Your task to perform on an android device: install app "McDonald's" Image 0: 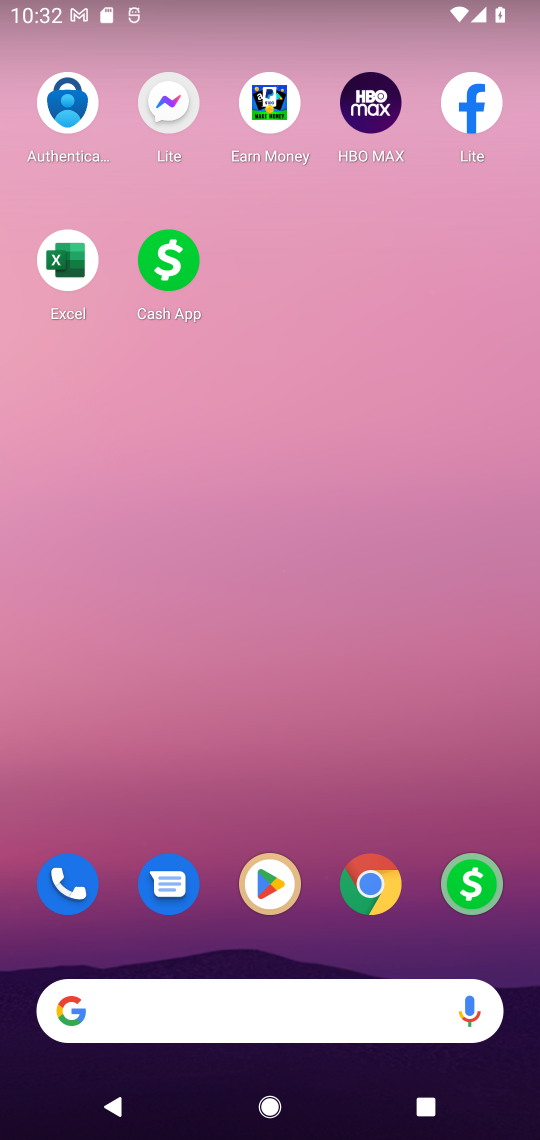
Step 0: drag from (235, 1016) to (410, 34)
Your task to perform on an android device: install app "McDonald's" Image 1: 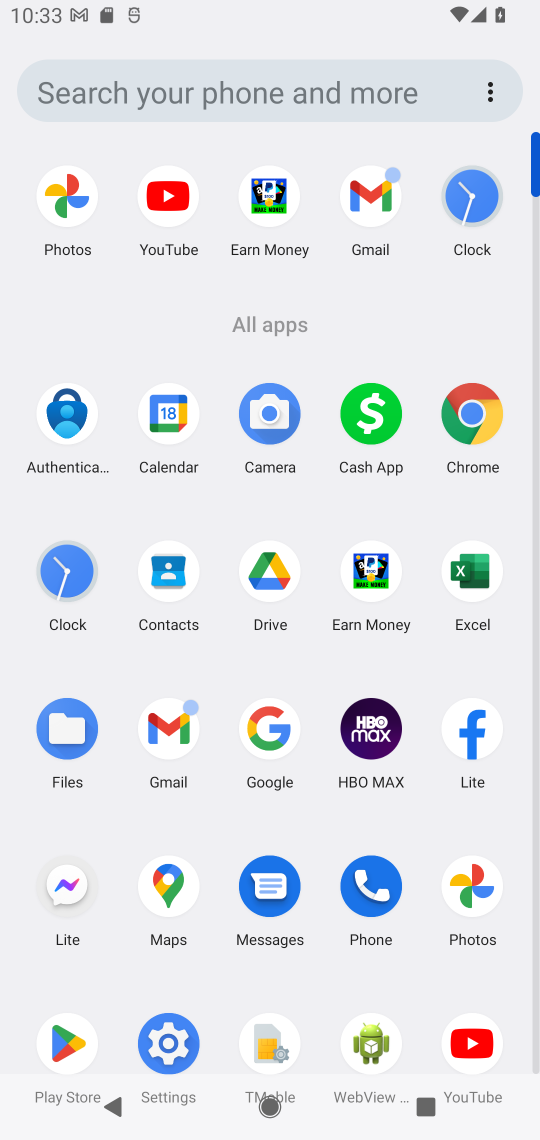
Step 1: click (69, 1056)
Your task to perform on an android device: install app "McDonald's" Image 2: 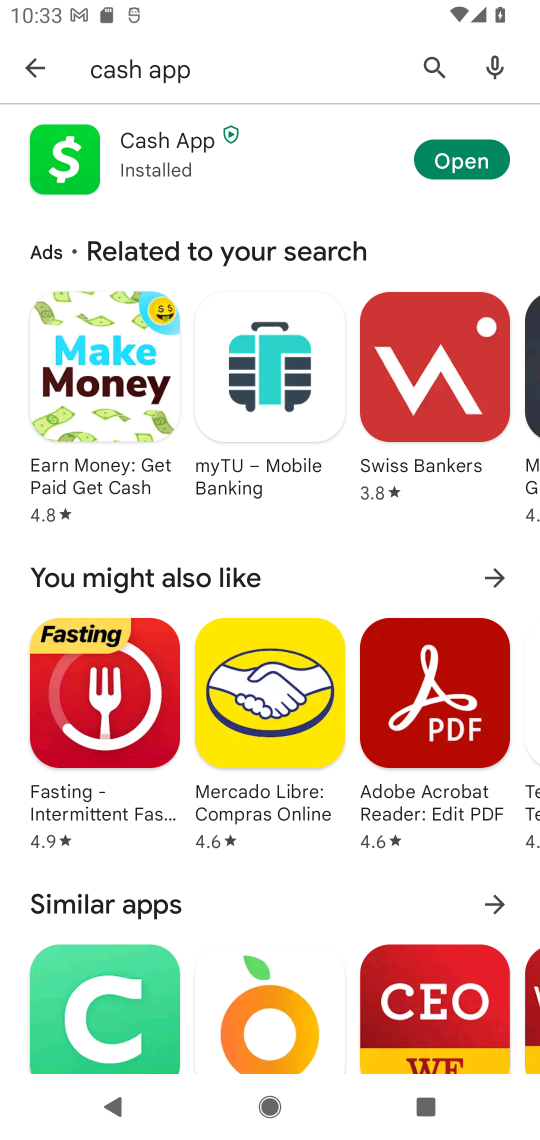
Step 2: press back button
Your task to perform on an android device: install app "McDonald's" Image 3: 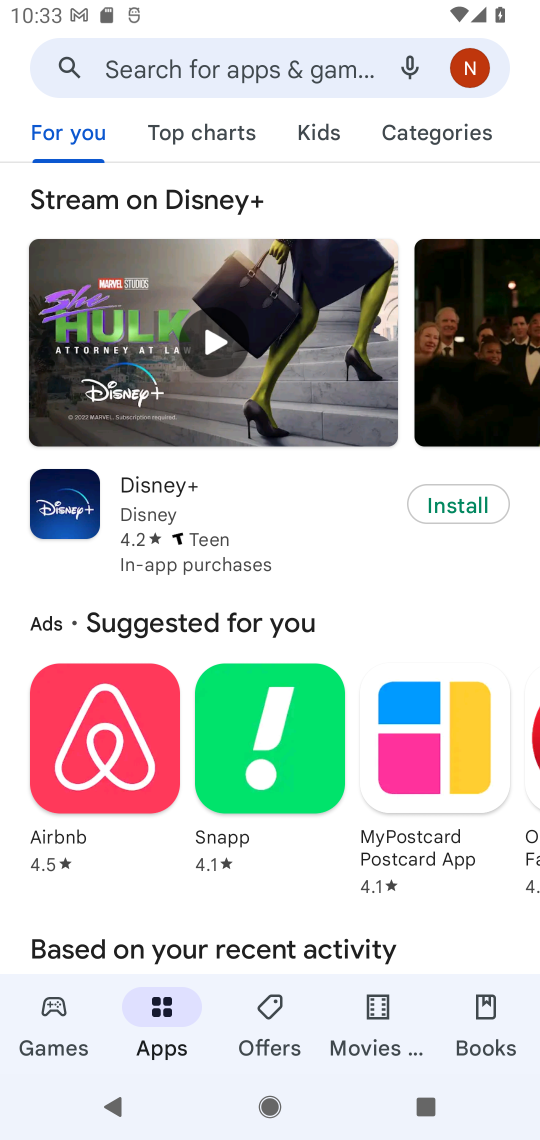
Step 3: click (291, 69)
Your task to perform on an android device: install app "McDonald's" Image 4: 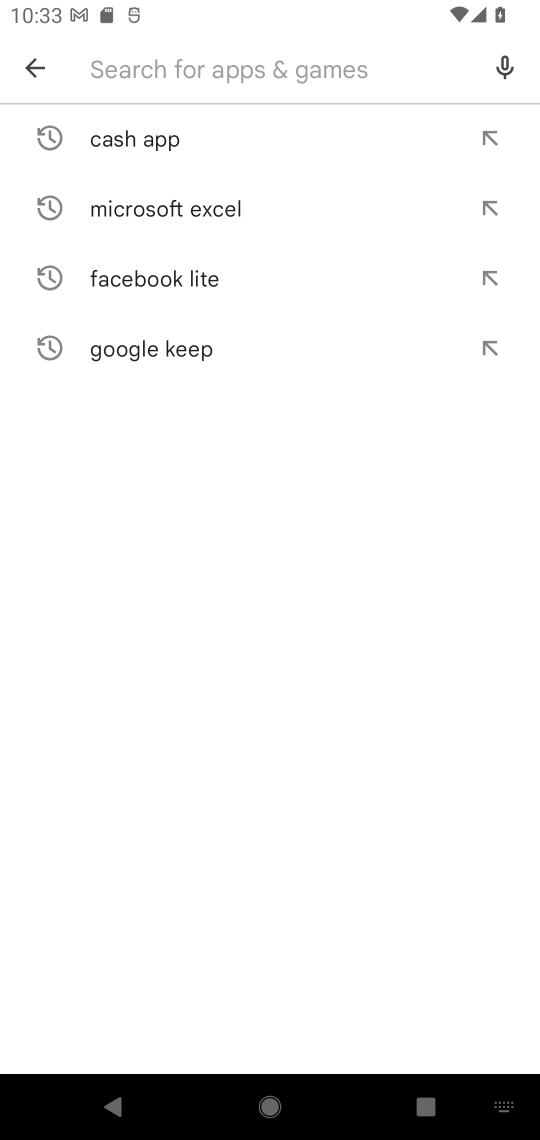
Step 4: type "McDonald's"
Your task to perform on an android device: install app "McDonald's" Image 5: 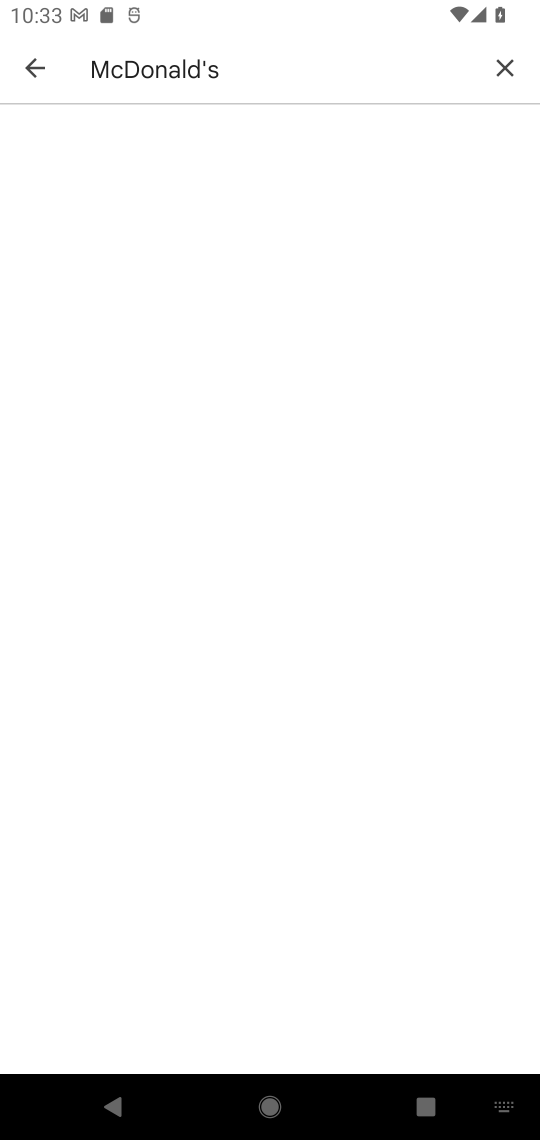
Step 5: click (498, 73)
Your task to perform on an android device: install app "McDonald's" Image 6: 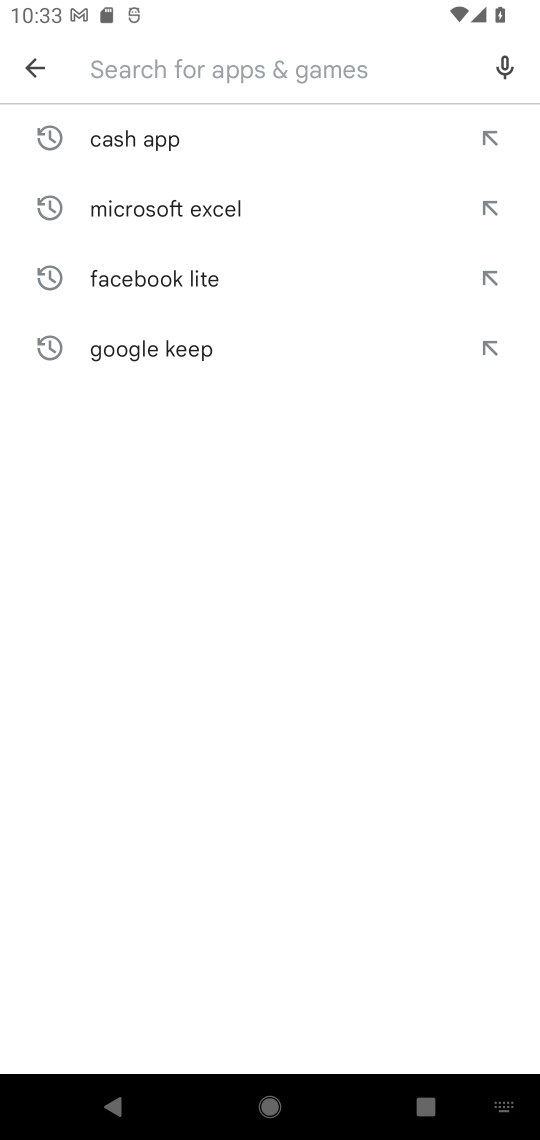
Step 6: press back button
Your task to perform on an android device: install app "McDonald's" Image 7: 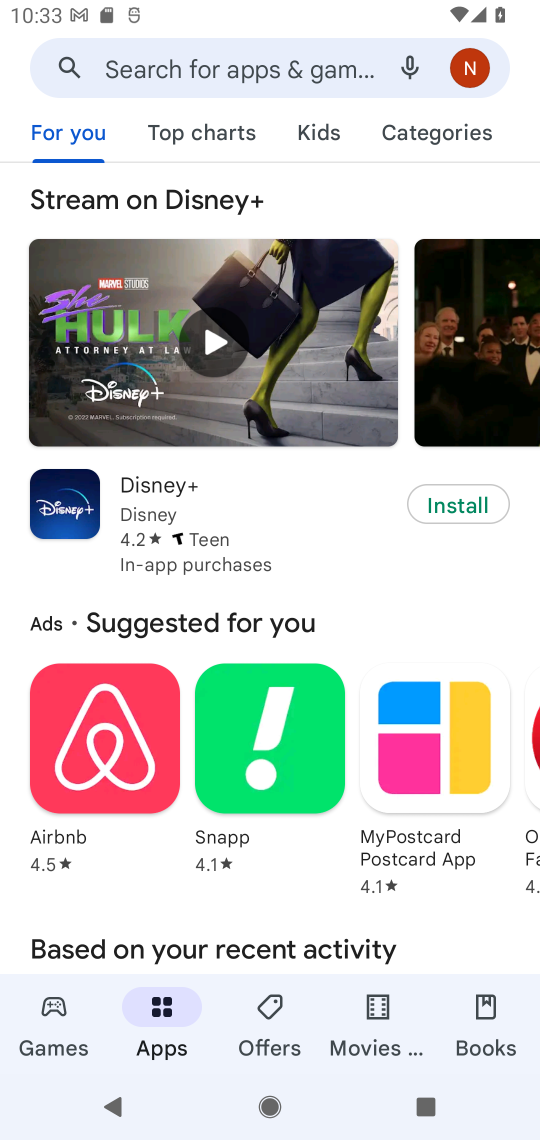
Step 7: click (195, 59)
Your task to perform on an android device: install app "McDonald's" Image 8: 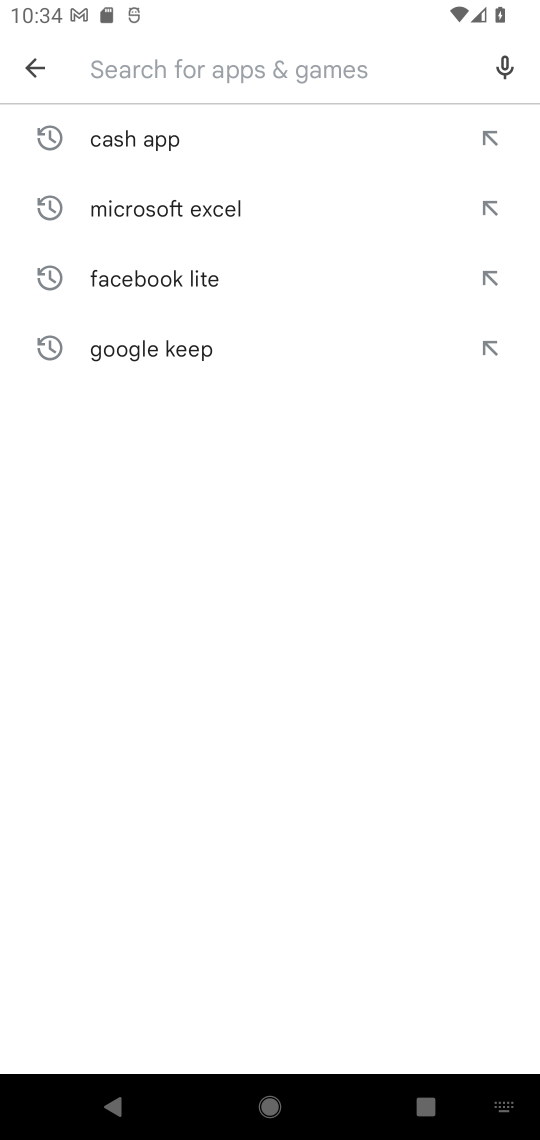
Step 8: type "McDonald's"
Your task to perform on an android device: install app "McDonald's" Image 9: 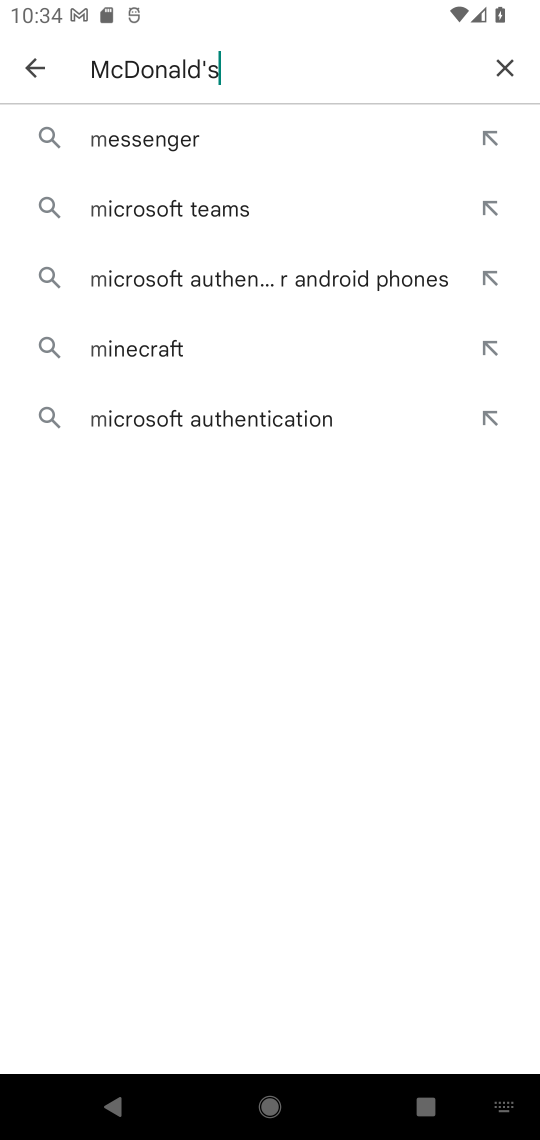
Step 9: type ""
Your task to perform on an android device: install app "McDonald's" Image 10: 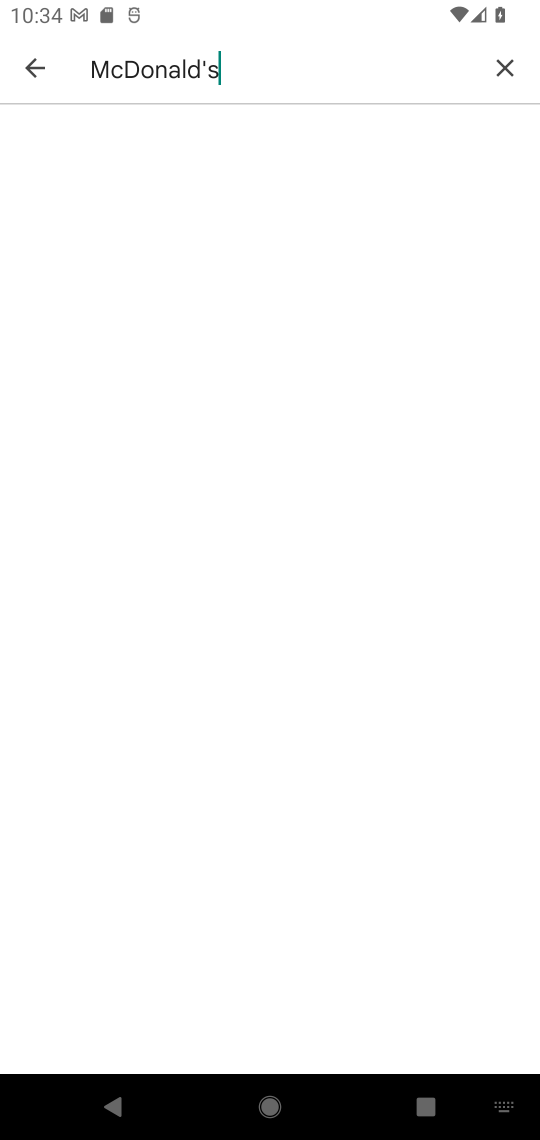
Step 10: task complete